Your task to perform on an android device: open sync settings in chrome Image 0: 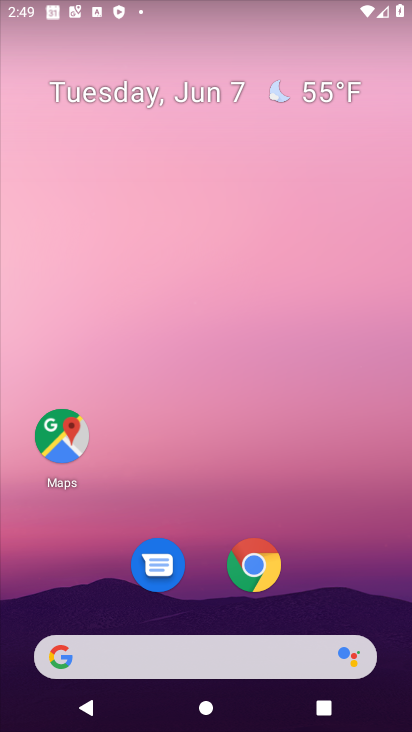
Step 0: drag from (300, 651) to (232, 18)
Your task to perform on an android device: open sync settings in chrome Image 1: 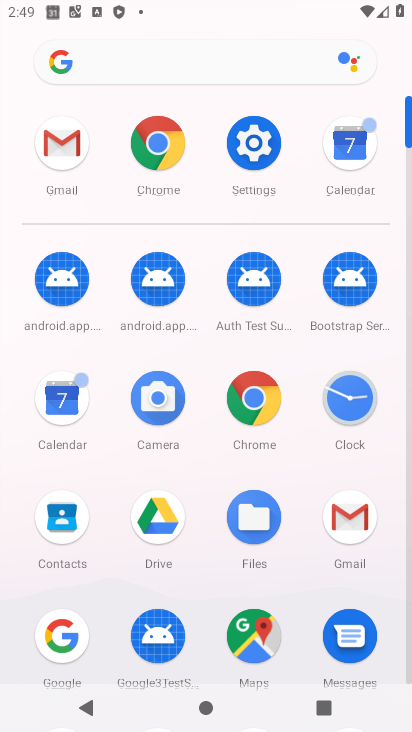
Step 1: click (234, 396)
Your task to perform on an android device: open sync settings in chrome Image 2: 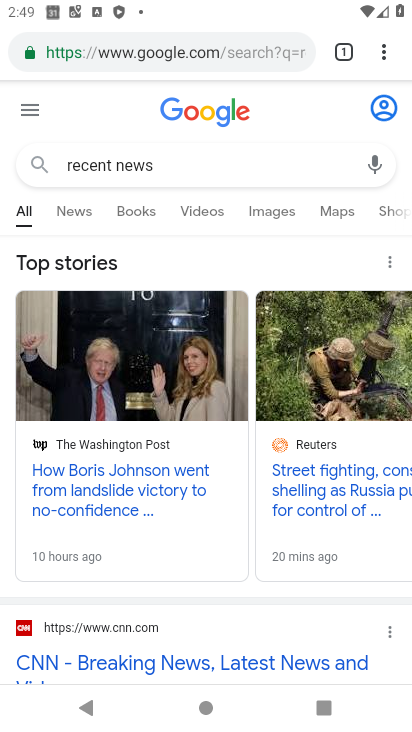
Step 2: drag from (385, 34) to (222, 596)
Your task to perform on an android device: open sync settings in chrome Image 3: 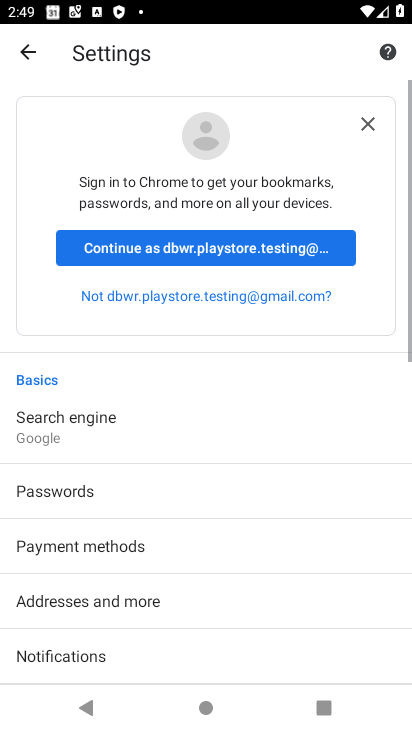
Step 3: drag from (260, 632) to (325, 107)
Your task to perform on an android device: open sync settings in chrome Image 4: 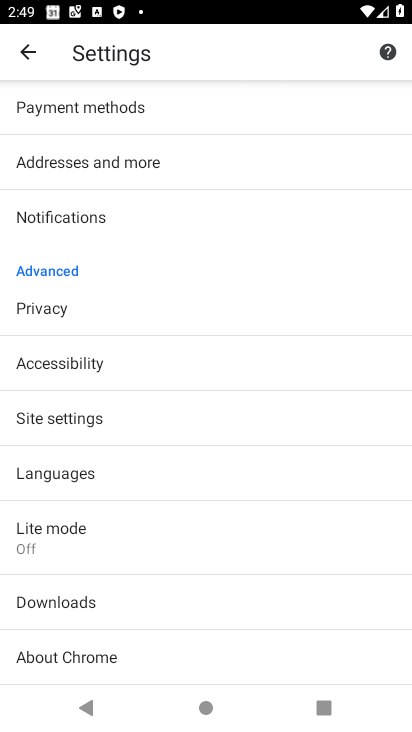
Step 4: click (104, 424)
Your task to perform on an android device: open sync settings in chrome Image 5: 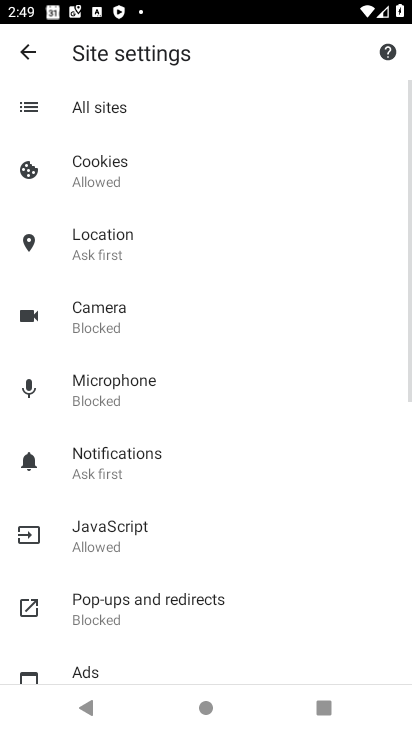
Step 5: drag from (173, 621) to (155, 209)
Your task to perform on an android device: open sync settings in chrome Image 6: 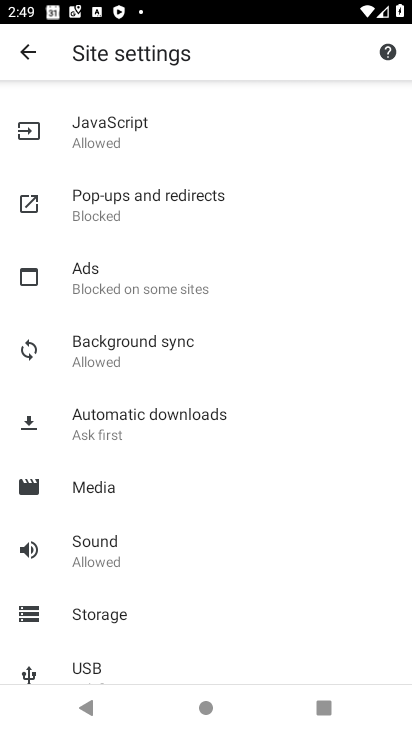
Step 6: click (162, 347)
Your task to perform on an android device: open sync settings in chrome Image 7: 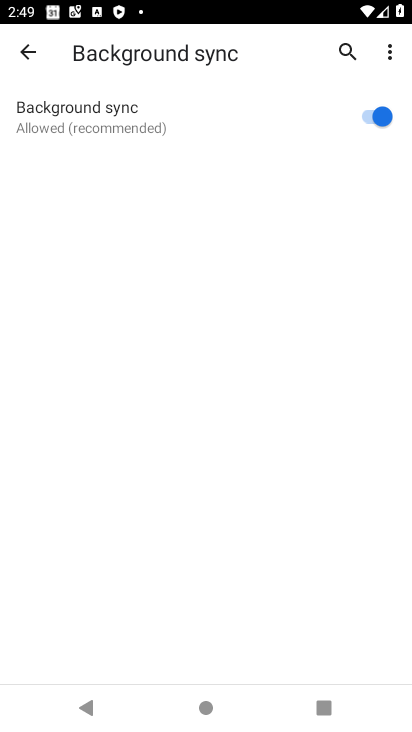
Step 7: task complete